Your task to perform on an android device: Go to ESPN.com Image 0: 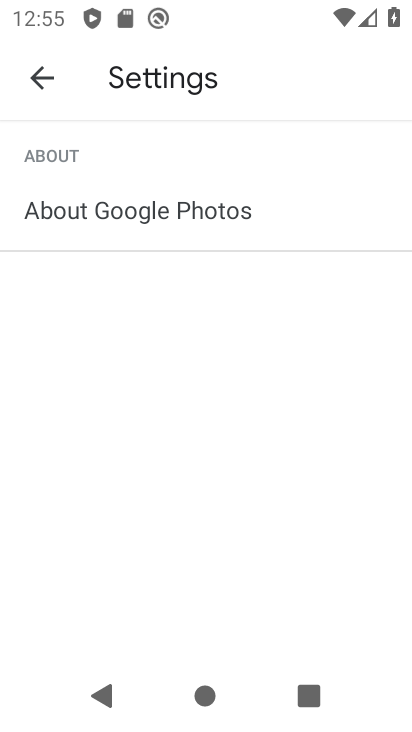
Step 0: press home button
Your task to perform on an android device: Go to ESPN.com Image 1: 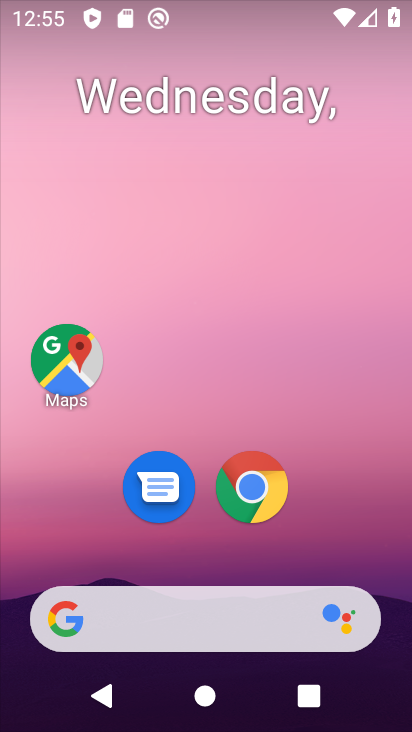
Step 1: click (259, 505)
Your task to perform on an android device: Go to ESPN.com Image 2: 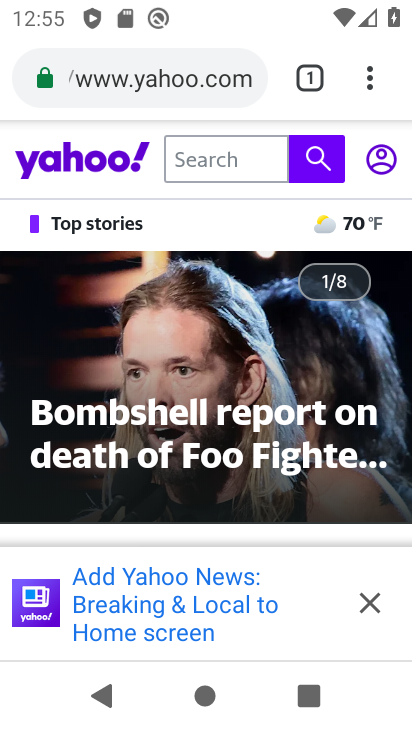
Step 2: click (203, 75)
Your task to perform on an android device: Go to ESPN.com Image 3: 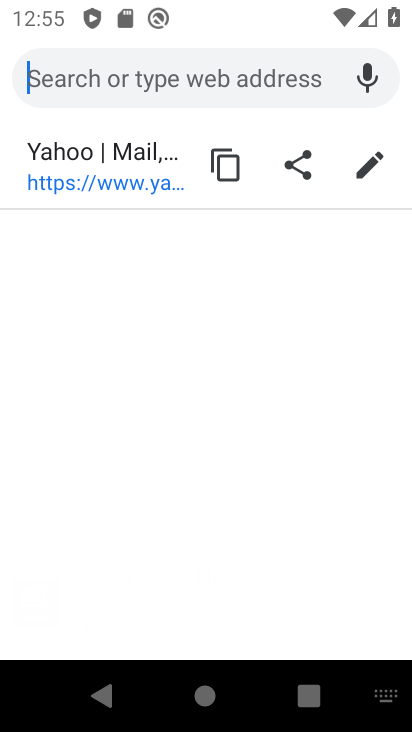
Step 3: type "espn.com"
Your task to perform on an android device: Go to ESPN.com Image 4: 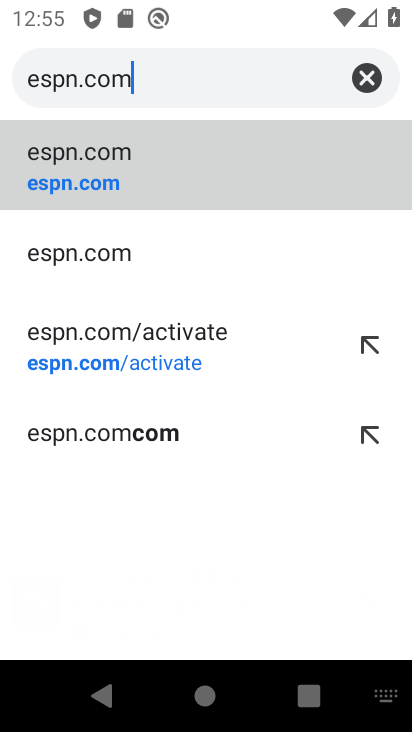
Step 4: click (225, 178)
Your task to perform on an android device: Go to ESPN.com Image 5: 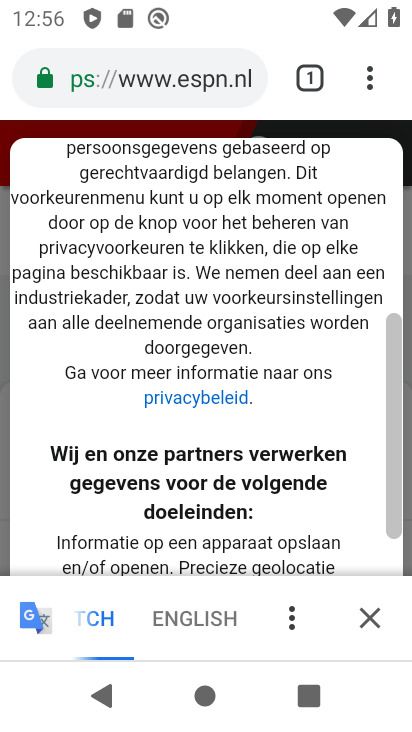
Step 5: task complete